Your task to perform on an android device: toggle wifi Image 0: 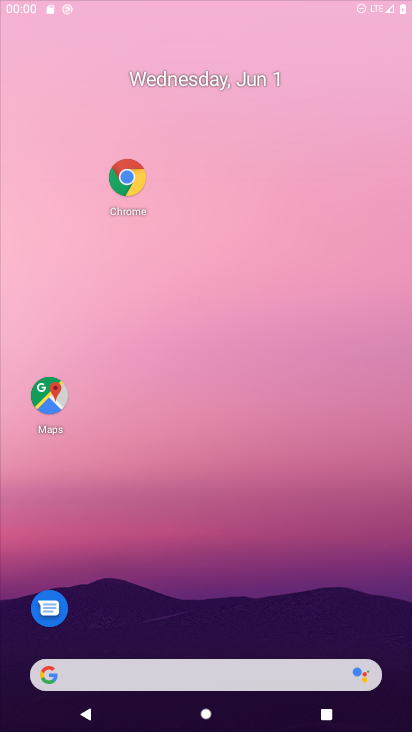
Step 0: press home button
Your task to perform on an android device: toggle wifi Image 1: 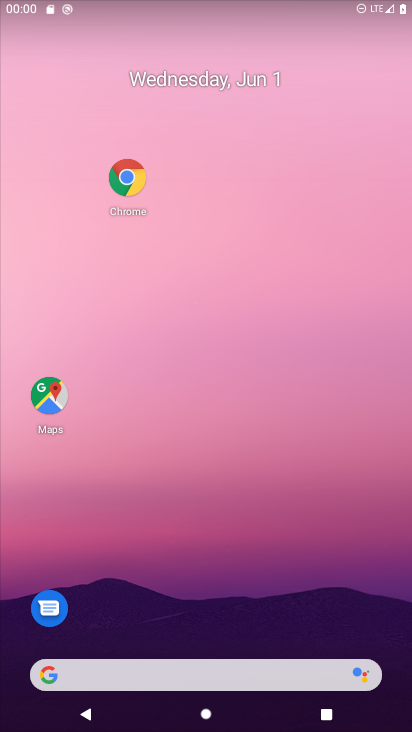
Step 1: click (130, 176)
Your task to perform on an android device: toggle wifi Image 2: 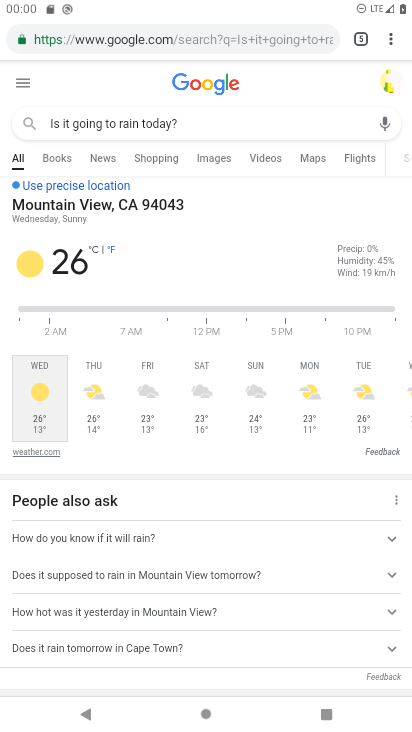
Step 2: drag from (389, 28) to (399, 112)
Your task to perform on an android device: toggle wifi Image 3: 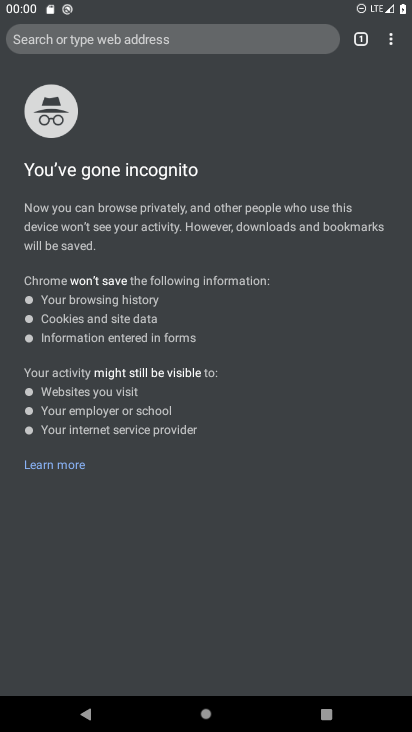
Step 3: press home button
Your task to perform on an android device: toggle wifi Image 4: 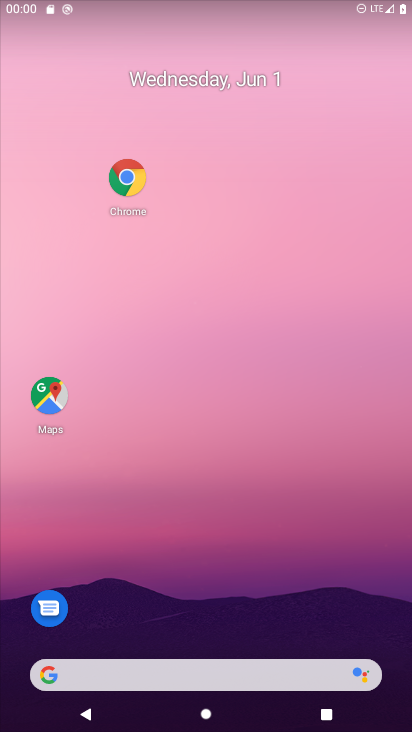
Step 4: drag from (209, 7) to (54, 664)
Your task to perform on an android device: toggle wifi Image 5: 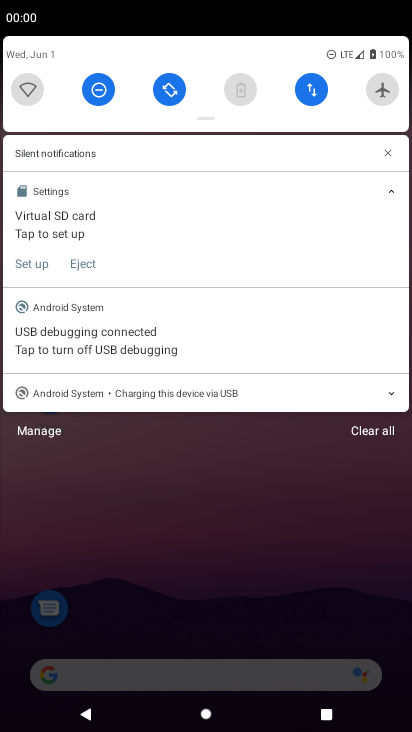
Step 5: click (23, 92)
Your task to perform on an android device: toggle wifi Image 6: 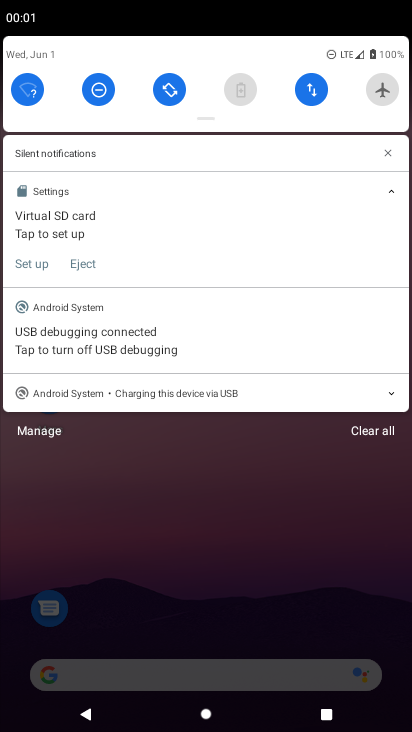
Step 6: task complete